Your task to perform on an android device: Toggle the flashlight Image 0: 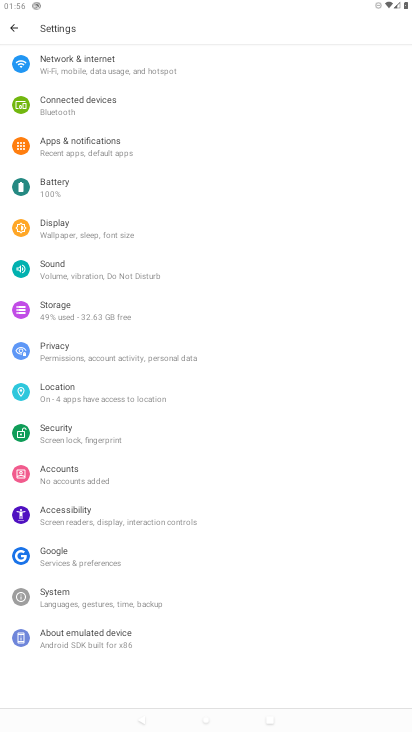
Step 0: click (61, 145)
Your task to perform on an android device: Toggle the flashlight Image 1: 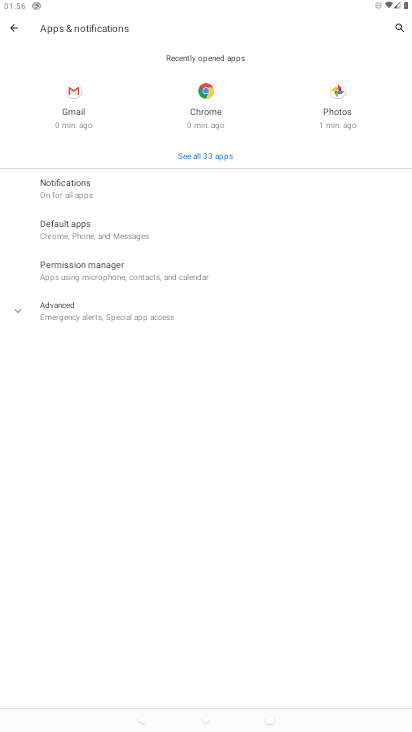
Step 1: task complete